Your task to perform on an android device: all mails in gmail Image 0: 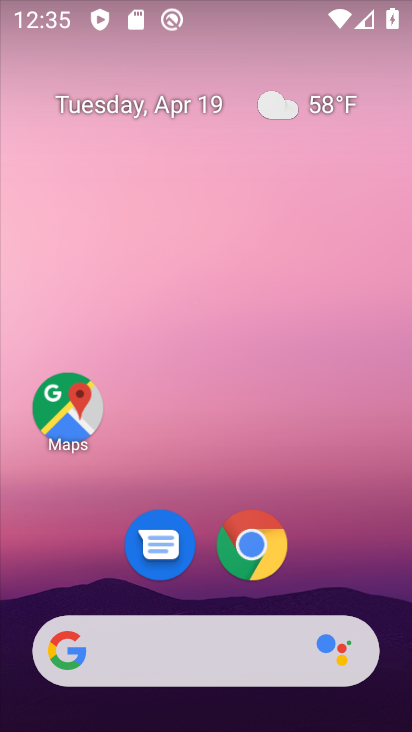
Step 0: drag from (211, 474) to (296, 36)
Your task to perform on an android device: all mails in gmail Image 1: 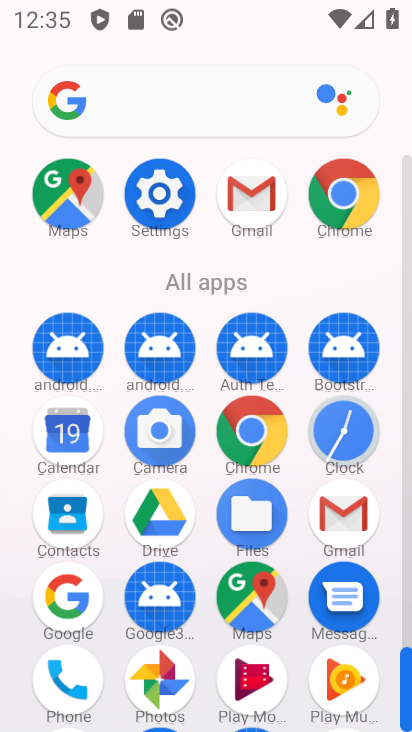
Step 1: click (259, 198)
Your task to perform on an android device: all mails in gmail Image 2: 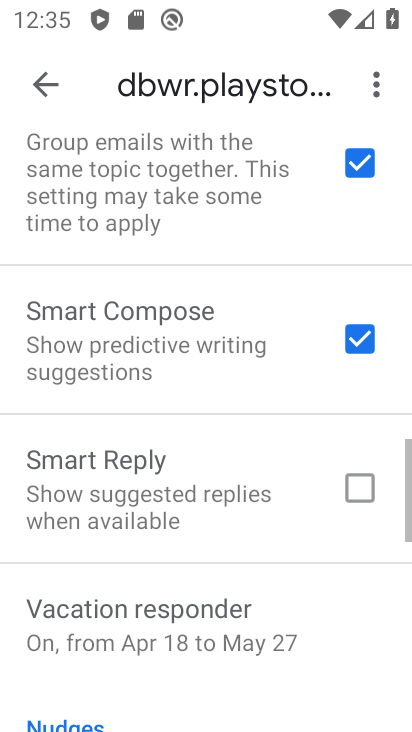
Step 2: click (36, 64)
Your task to perform on an android device: all mails in gmail Image 3: 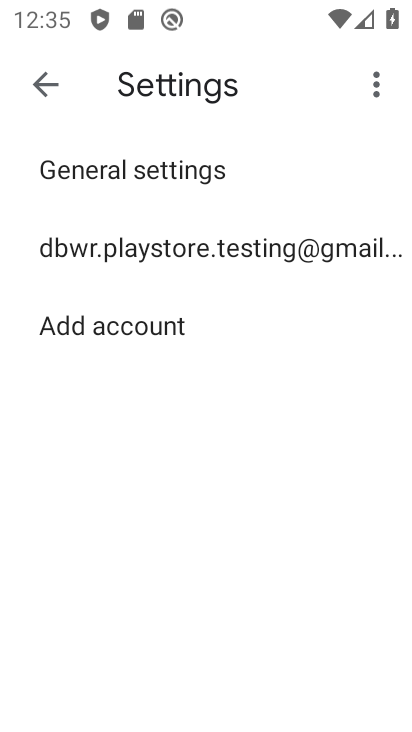
Step 3: click (48, 70)
Your task to perform on an android device: all mails in gmail Image 4: 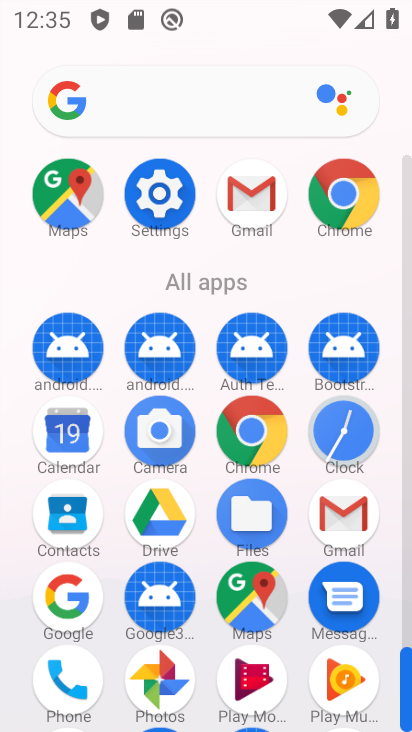
Step 4: click (254, 189)
Your task to perform on an android device: all mails in gmail Image 5: 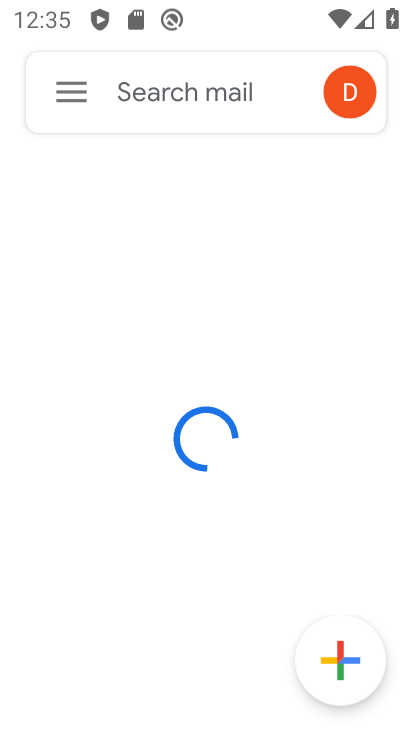
Step 5: click (83, 87)
Your task to perform on an android device: all mails in gmail Image 6: 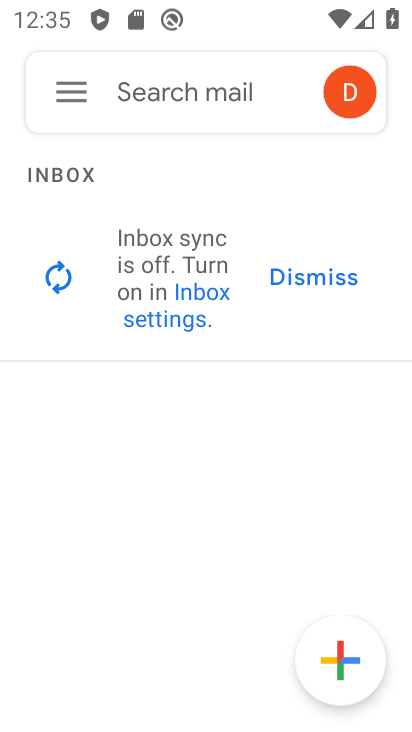
Step 6: click (83, 87)
Your task to perform on an android device: all mails in gmail Image 7: 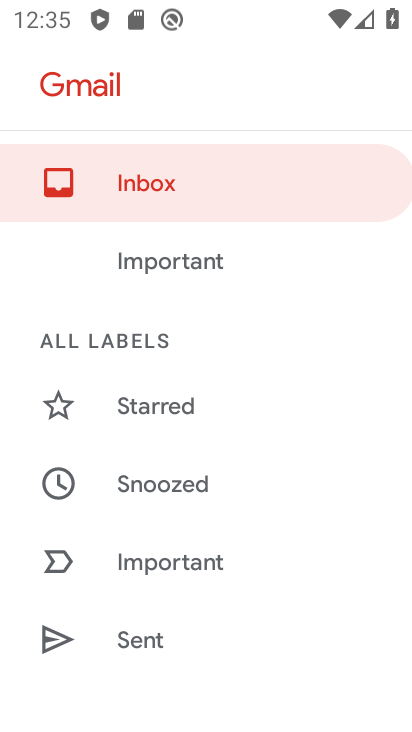
Step 7: drag from (171, 553) to (284, 113)
Your task to perform on an android device: all mails in gmail Image 8: 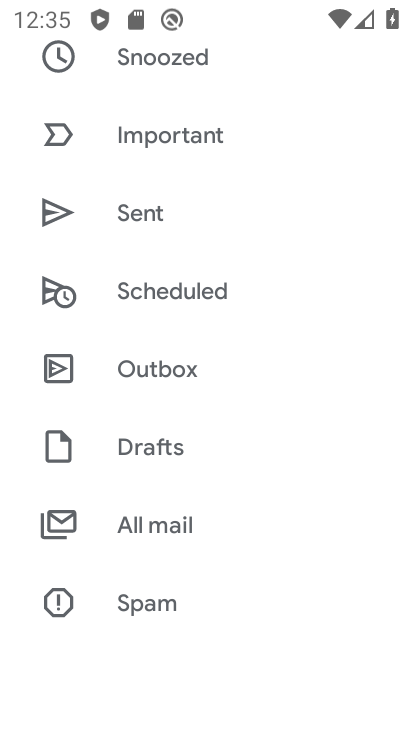
Step 8: click (166, 533)
Your task to perform on an android device: all mails in gmail Image 9: 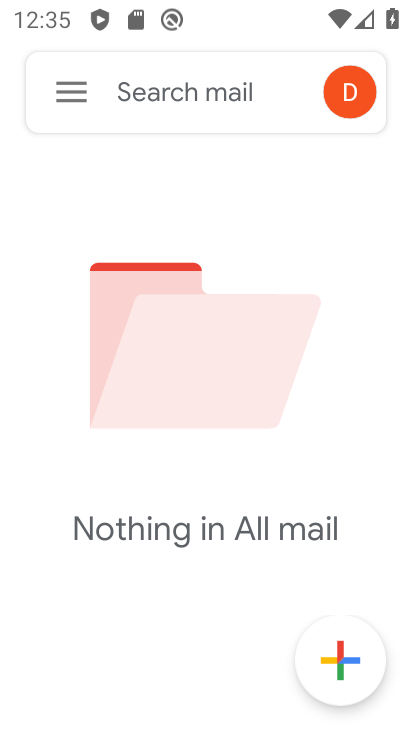
Step 9: task complete